Your task to perform on an android device: Open accessibility settings Image 0: 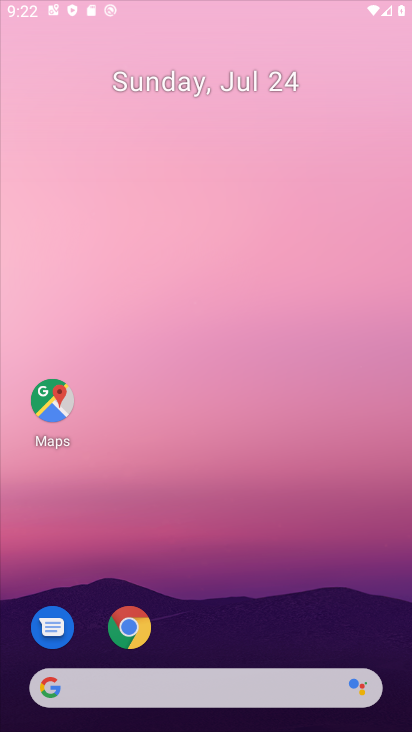
Step 0: drag from (164, 192) to (162, 36)
Your task to perform on an android device: Open accessibility settings Image 1: 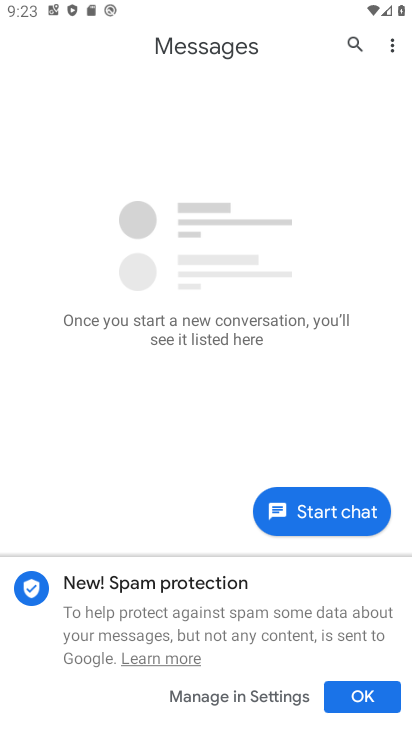
Step 1: press home button
Your task to perform on an android device: Open accessibility settings Image 2: 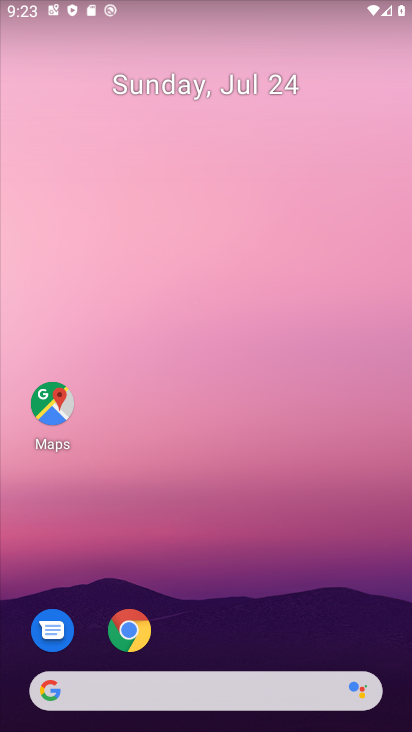
Step 2: drag from (230, 622) to (230, 42)
Your task to perform on an android device: Open accessibility settings Image 3: 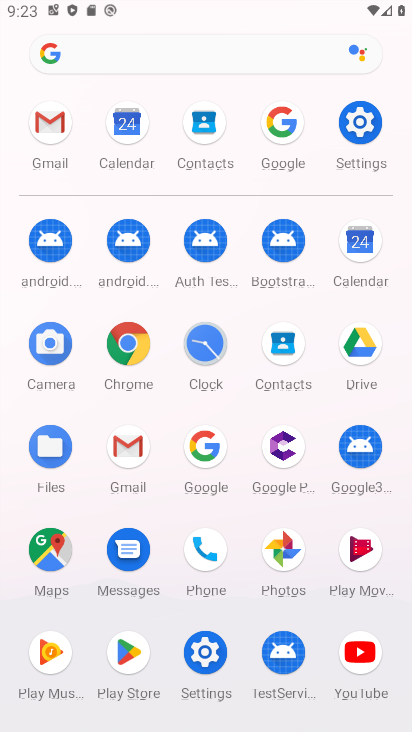
Step 3: click (352, 93)
Your task to perform on an android device: Open accessibility settings Image 4: 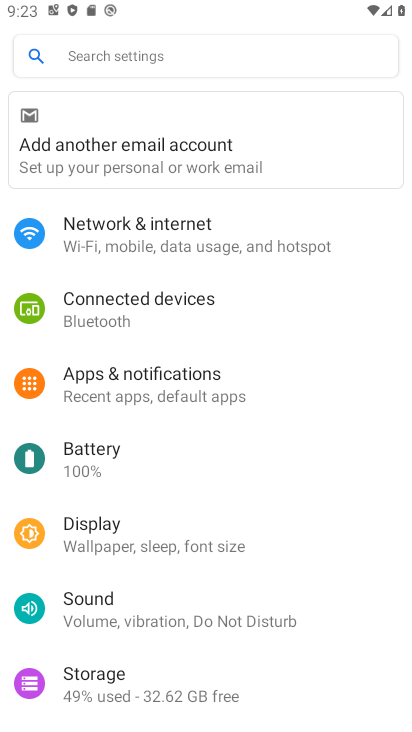
Step 4: drag from (182, 630) to (254, 132)
Your task to perform on an android device: Open accessibility settings Image 5: 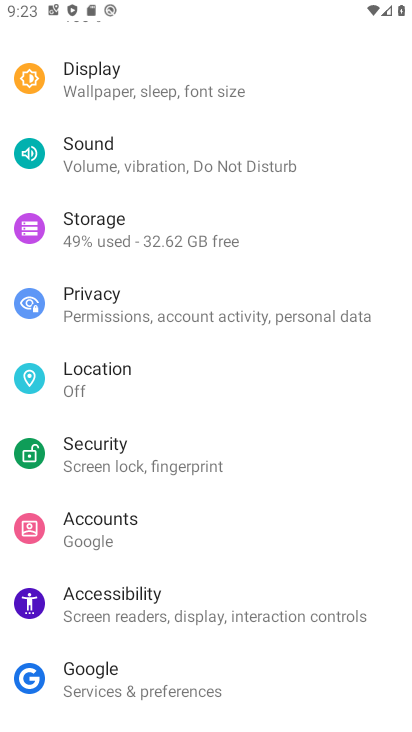
Step 5: click (164, 588)
Your task to perform on an android device: Open accessibility settings Image 6: 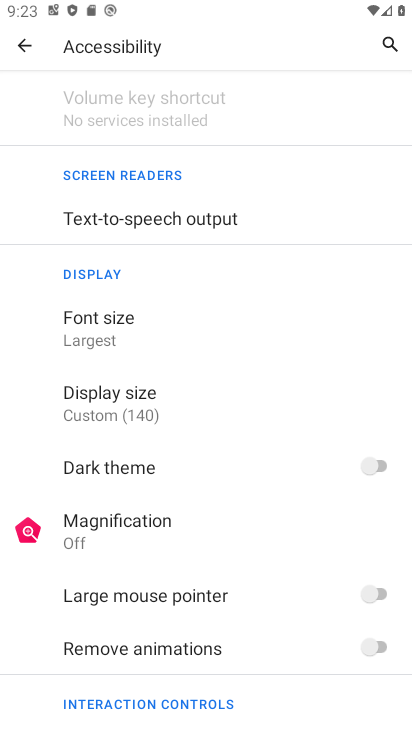
Step 6: task complete